Your task to perform on an android device: Search for pizza restaurants on Maps Image 0: 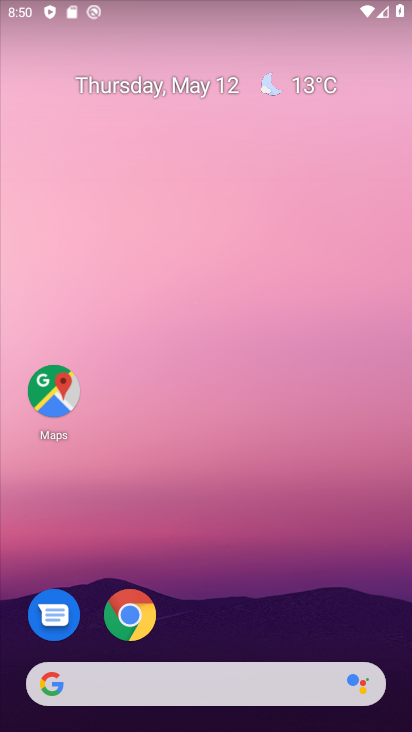
Step 0: click (56, 394)
Your task to perform on an android device: Search for pizza restaurants on Maps Image 1: 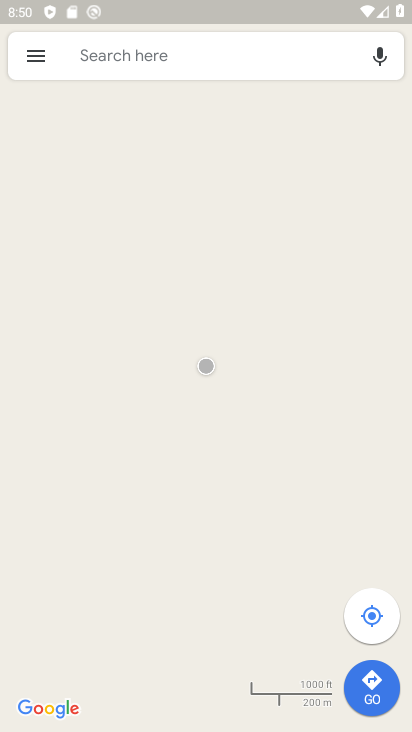
Step 1: click (202, 75)
Your task to perform on an android device: Search for pizza restaurants on Maps Image 2: 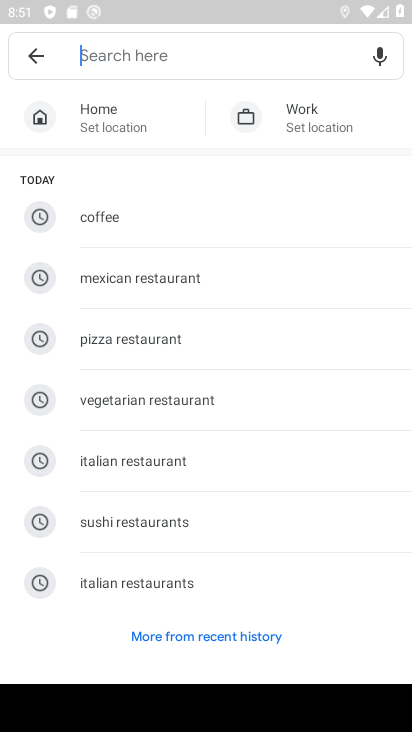
Step 2: type "pizza"
Your task to perform on an android device: Search for pizza restaurants on Maps Image 3: 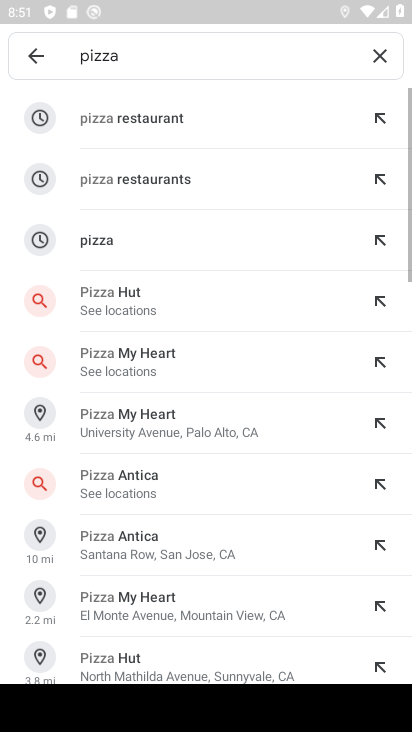
Step 3: click (229, 111)
Your task to perform on an android device: Search for pizza restaurants on Maps Image 4: 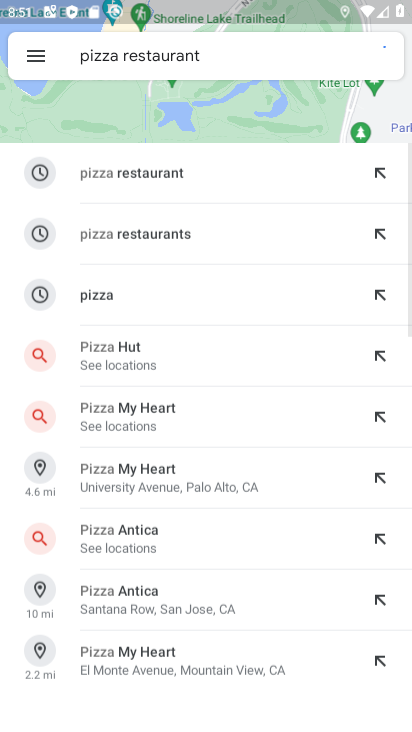
Step 4: task complete